Your task to perform on an android device: clear history in the chrome app Image 0: 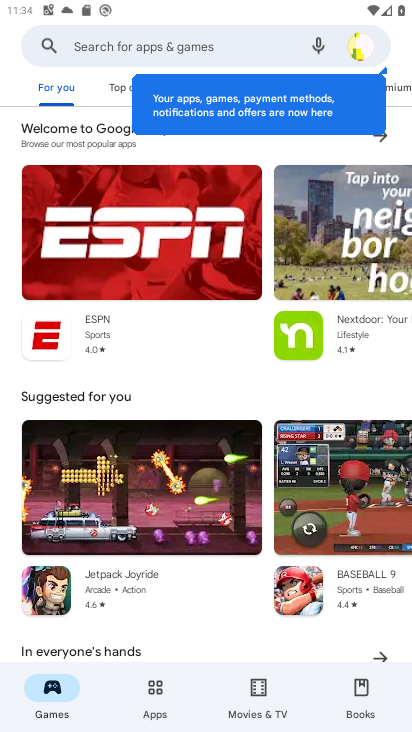
Step 0: press home button
Your task to perform on an android device: clear history in the chrome app Image 1: 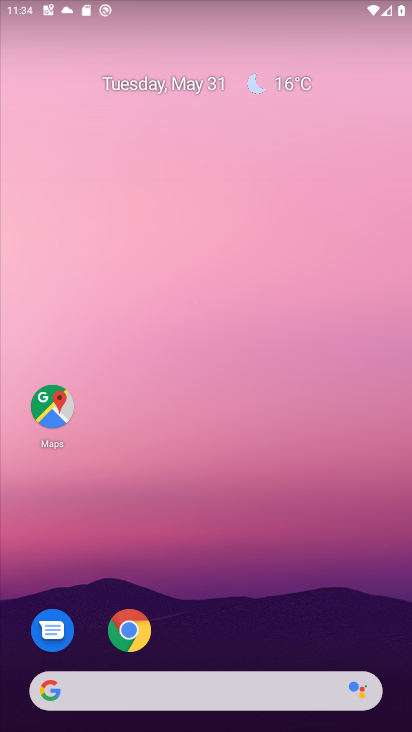
Step 1: click (134, 633)
Your task to perform on an android device: clear history in the chrome app Image 2: 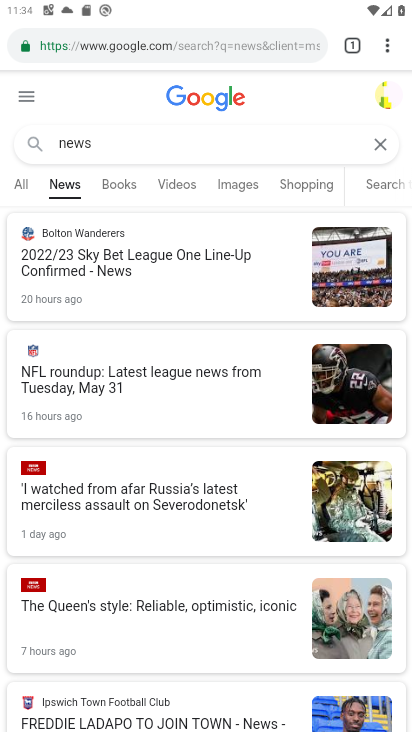
Step 2: press home button
Your task to perform on an android device: clear history in the chrome app Image 3: 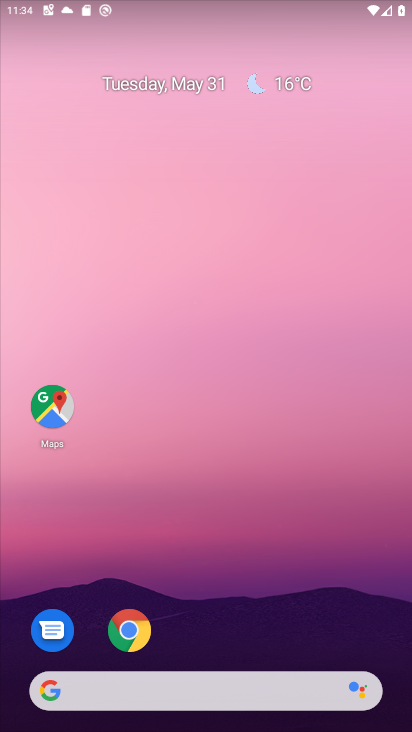
Step 3: click (128, 634)
Your task to perform on an android device: clear history in the chrome app Image 4: 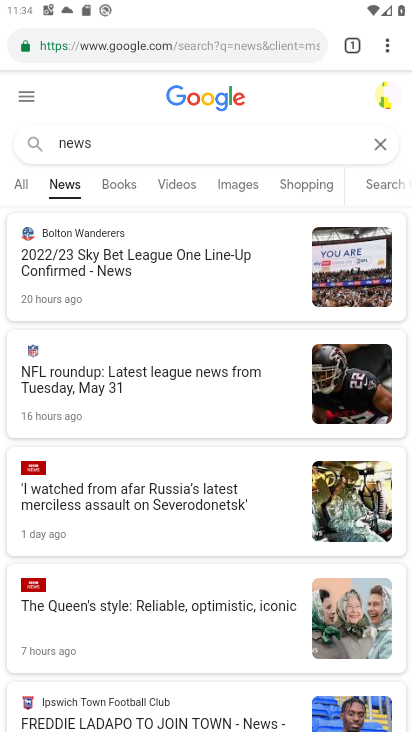
Step 4: drag from (371, 43) to (240, 260)
Your task to perform on an android device: clear history in the chrome app Image 5: 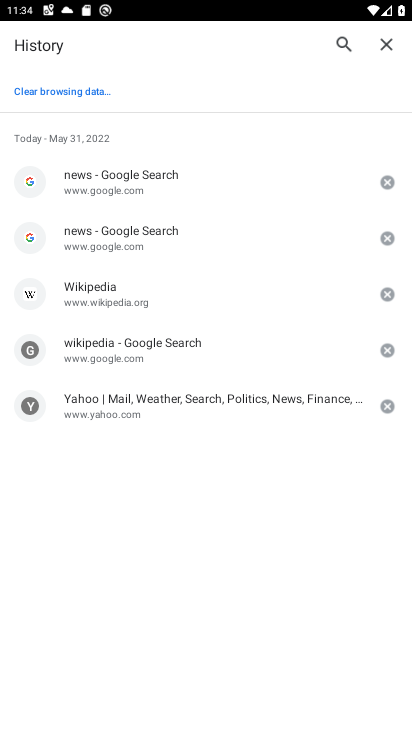
Step 5: click (68, 88)
Your task to perform on an android device: clear history in the chrome app Image 6: 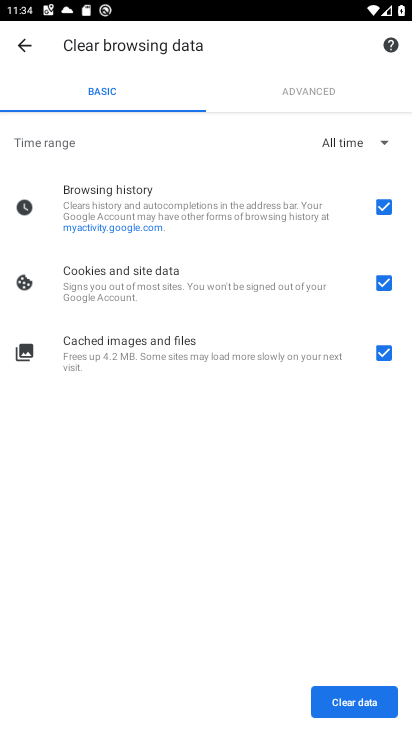
Step 6: click (375, 700)
Your task to perform on an android device: clear history in the chrome app Image 7: 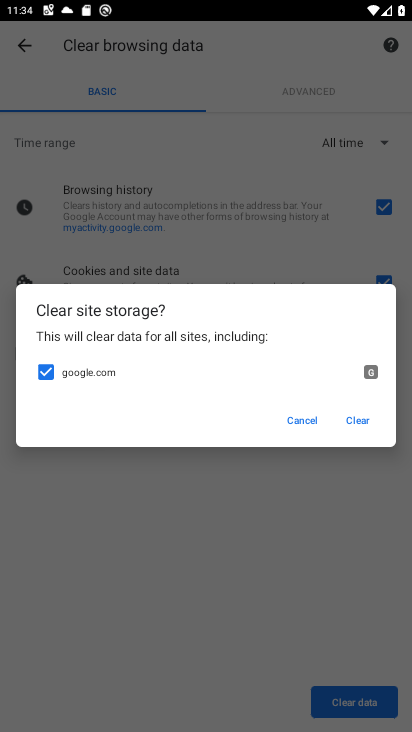
Step 7: click (361, 416)
Your task to perform on an android device: clear history in the chrome app Image 8: 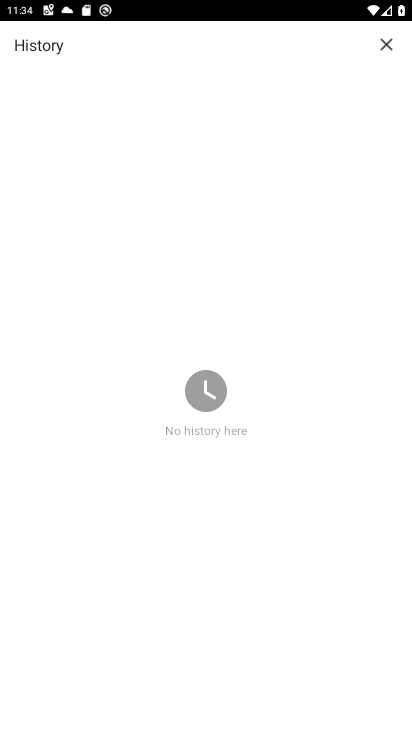
Step 8: task complete